Your task to perform on an android device: Open CNN.com Image 0: 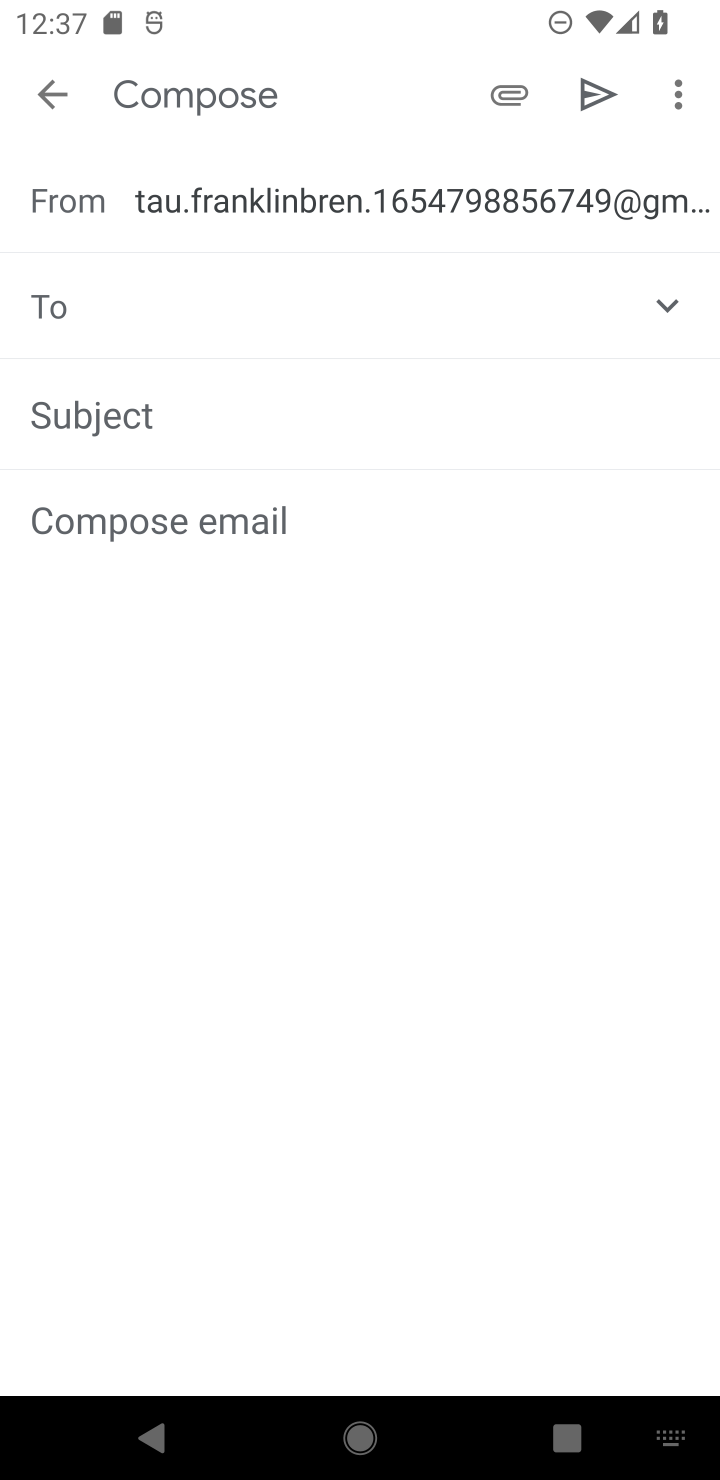
Step 0: press home button
Your task to perform on an android device: Open CNN.com Image 1: 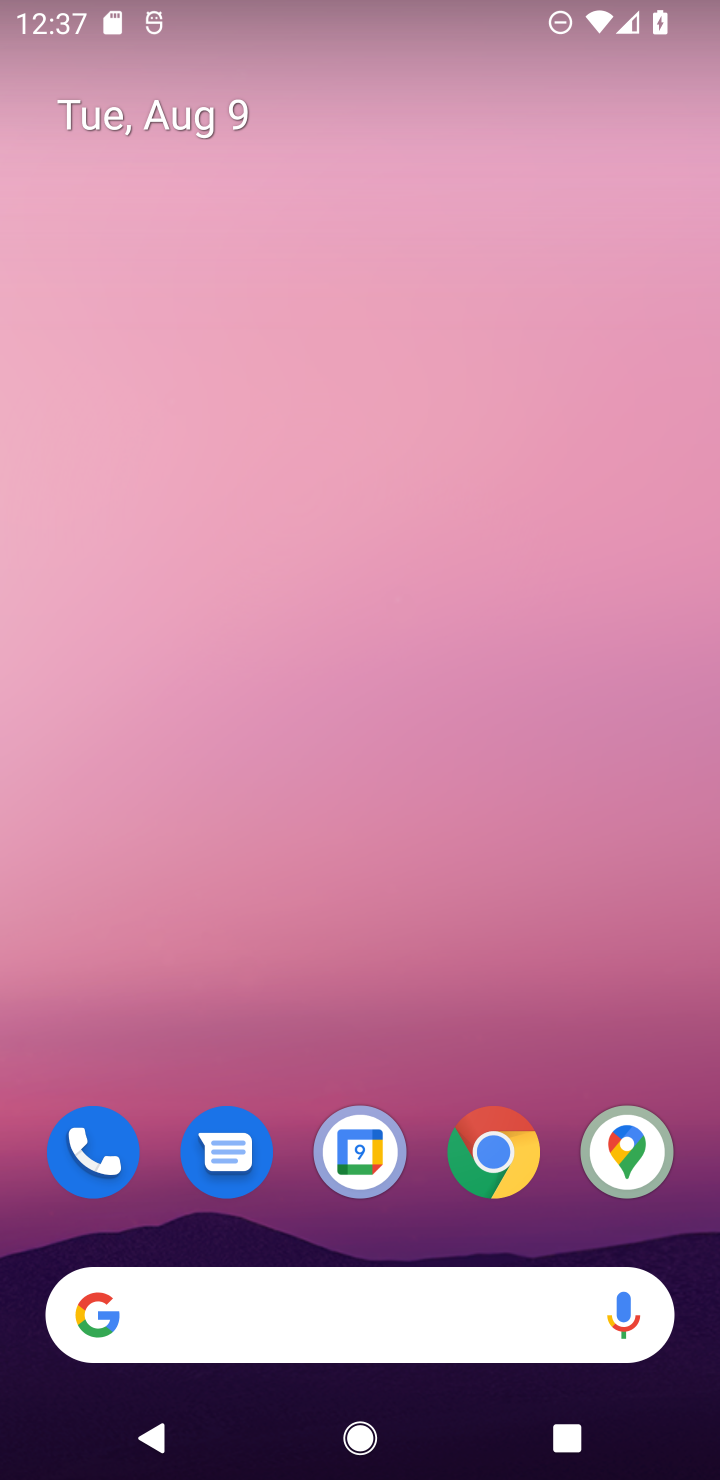
Step 1: click (510, 1151)
Your task to perform on an android device: Open CNN.com Image 2: 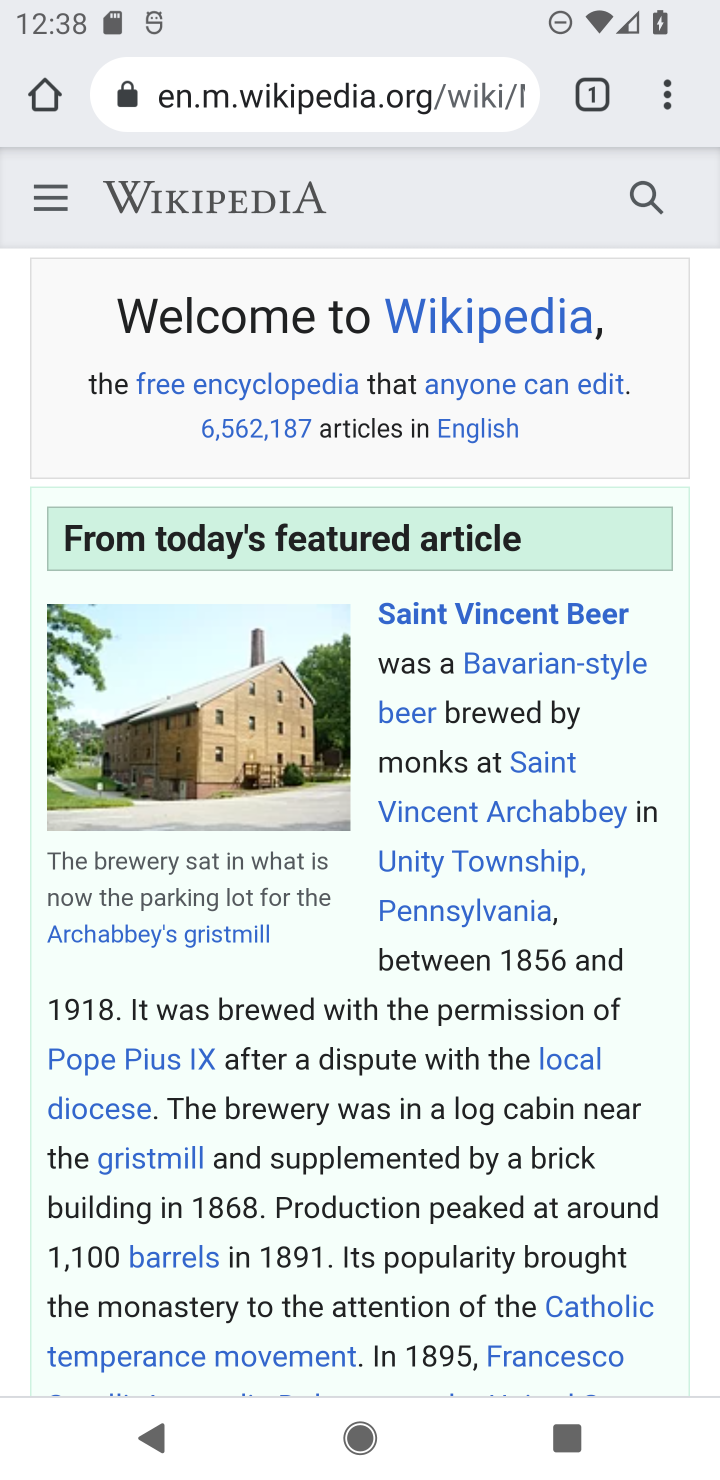
Step 2: click (328, 99)
Your task to perform on an android device: Open CNN.com Image 3: 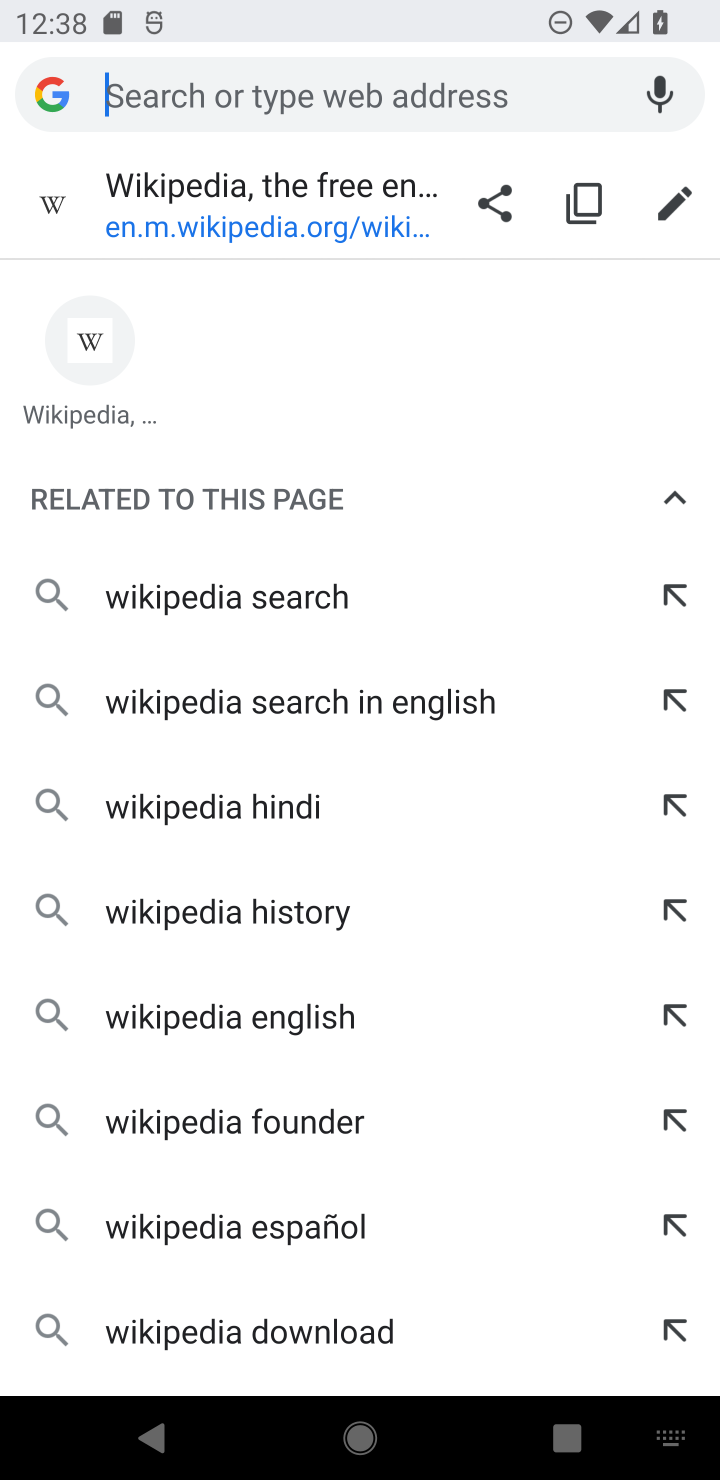
Step 3: type "cnn.com"
Your task to perform on an android device: Open CNN.com Image 4: 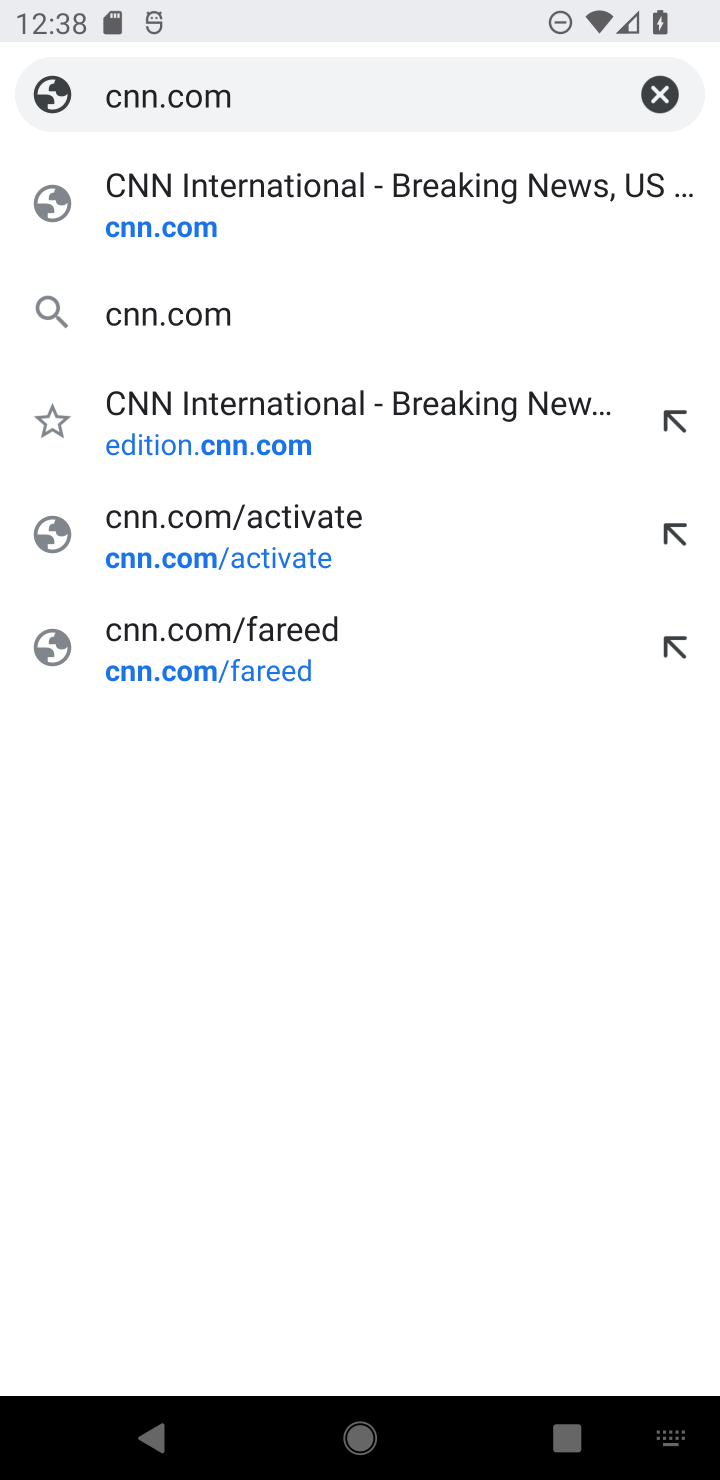
Step 4: click (149, 180)
Your task to perform on an android device: Open CNN.com Image 5: 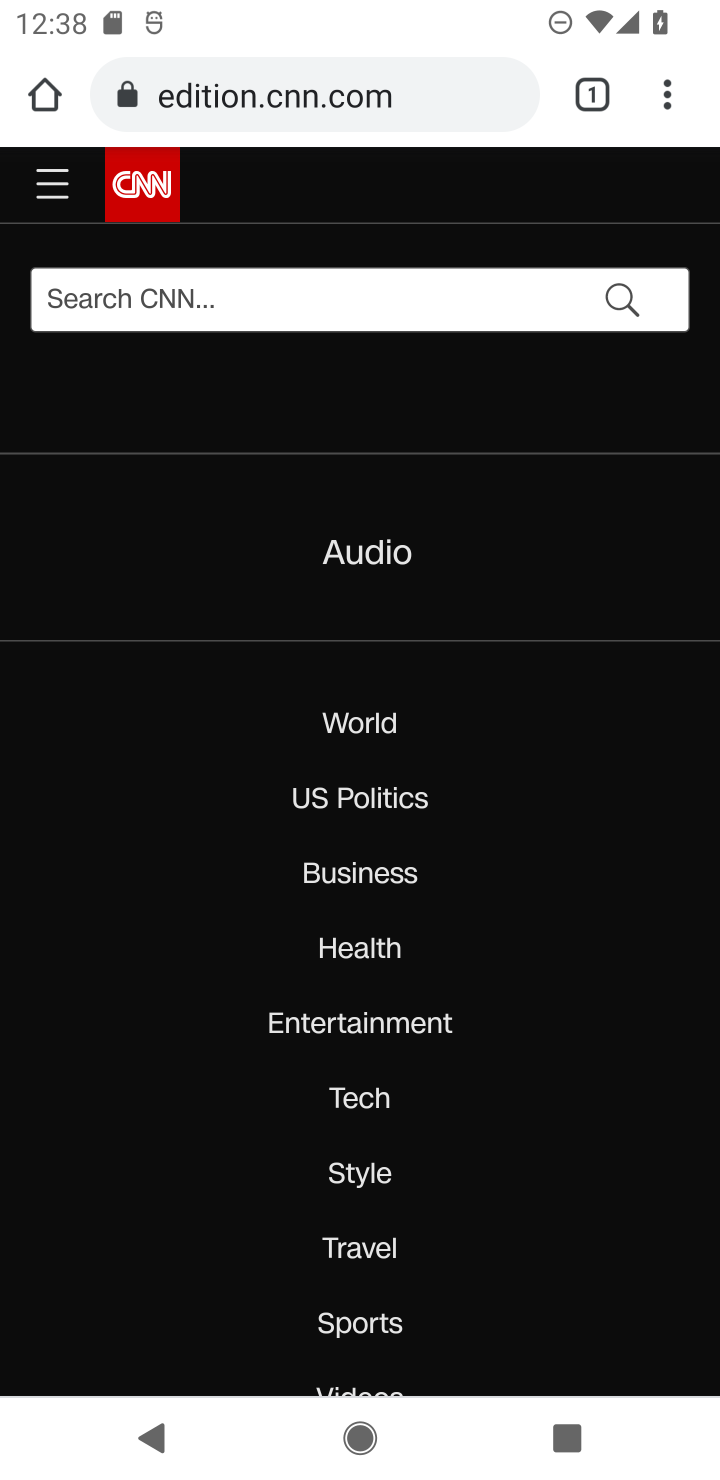
Step 5: task complete